Your task to perform on an android device: snooze an email in the gmail app Image 0: 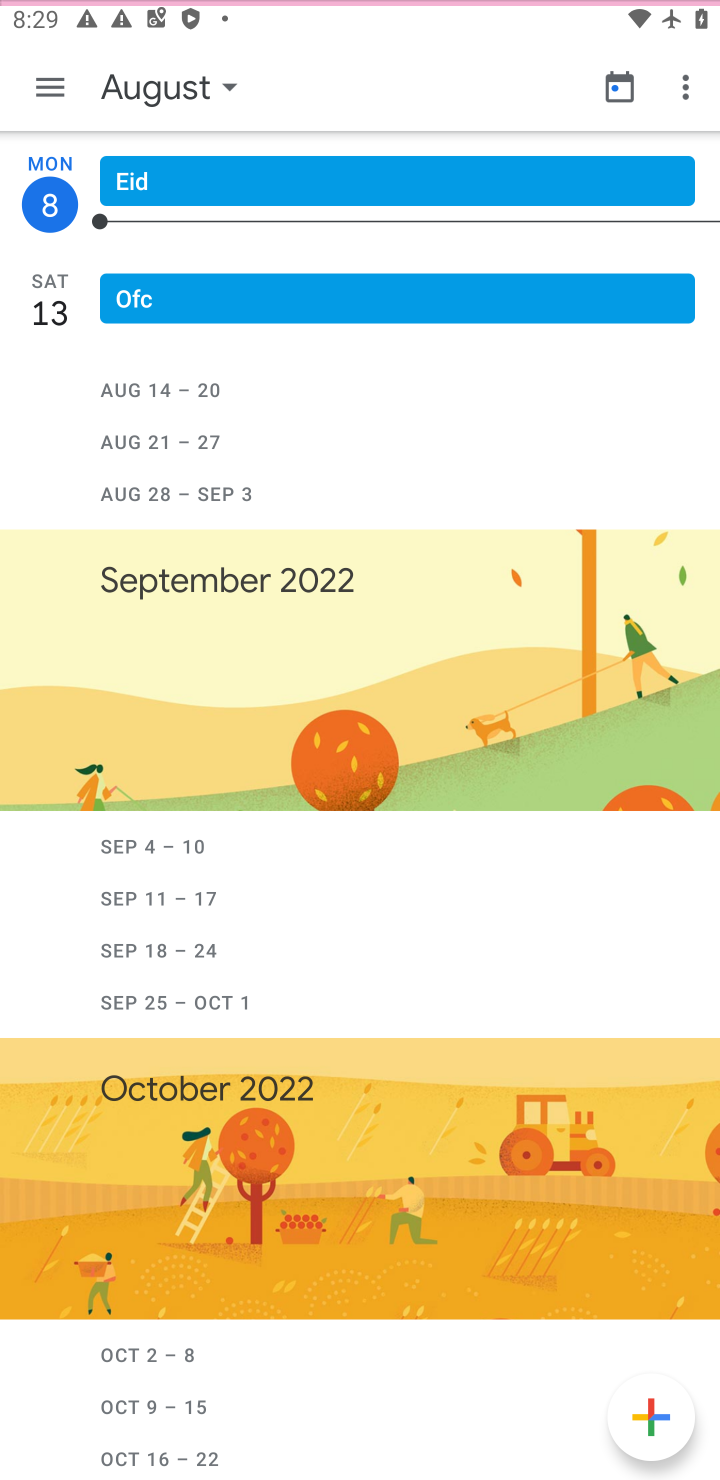
Step 0: click (466, 681)
Your task to perform on an android device: snooze an email in the gmail app Image 1: 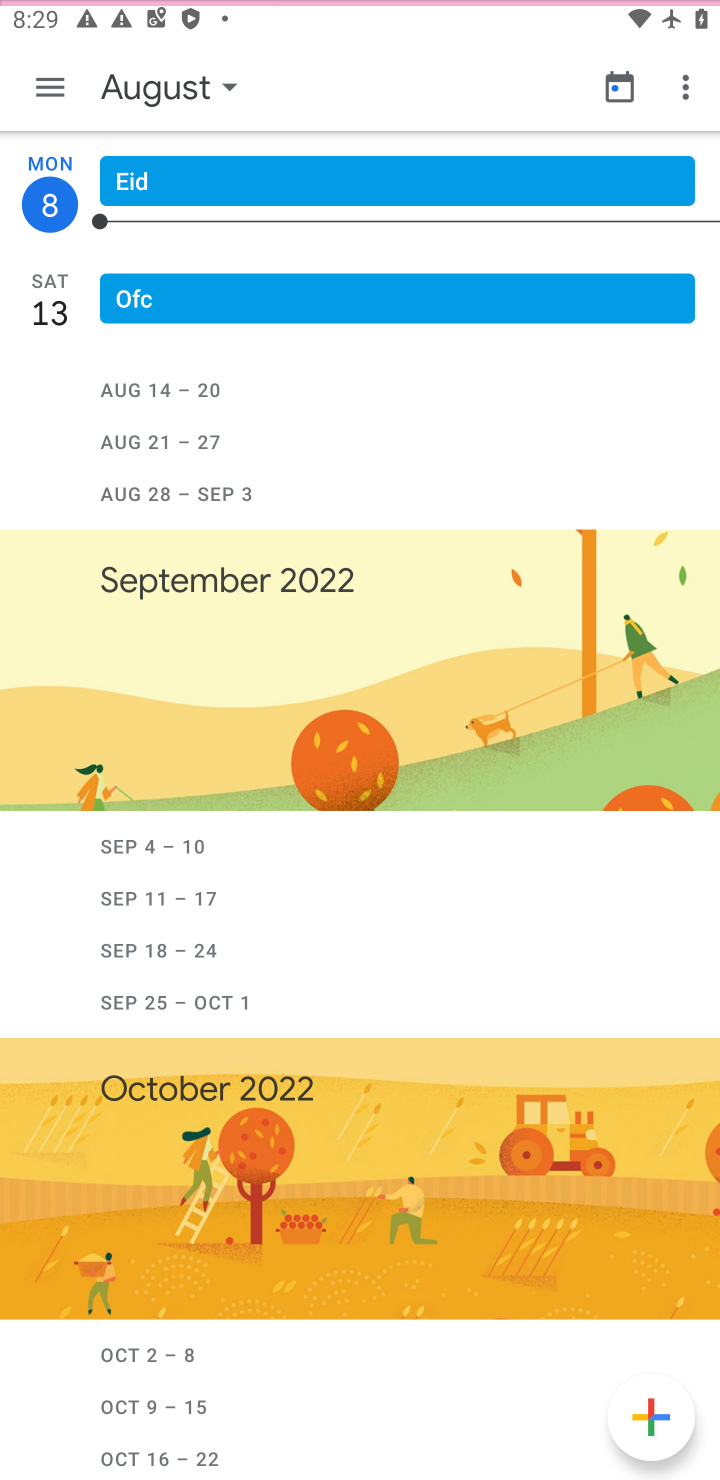
Step 1: press home button
Your task to perform on an android device: snooze an email in the gmail app Image 2: 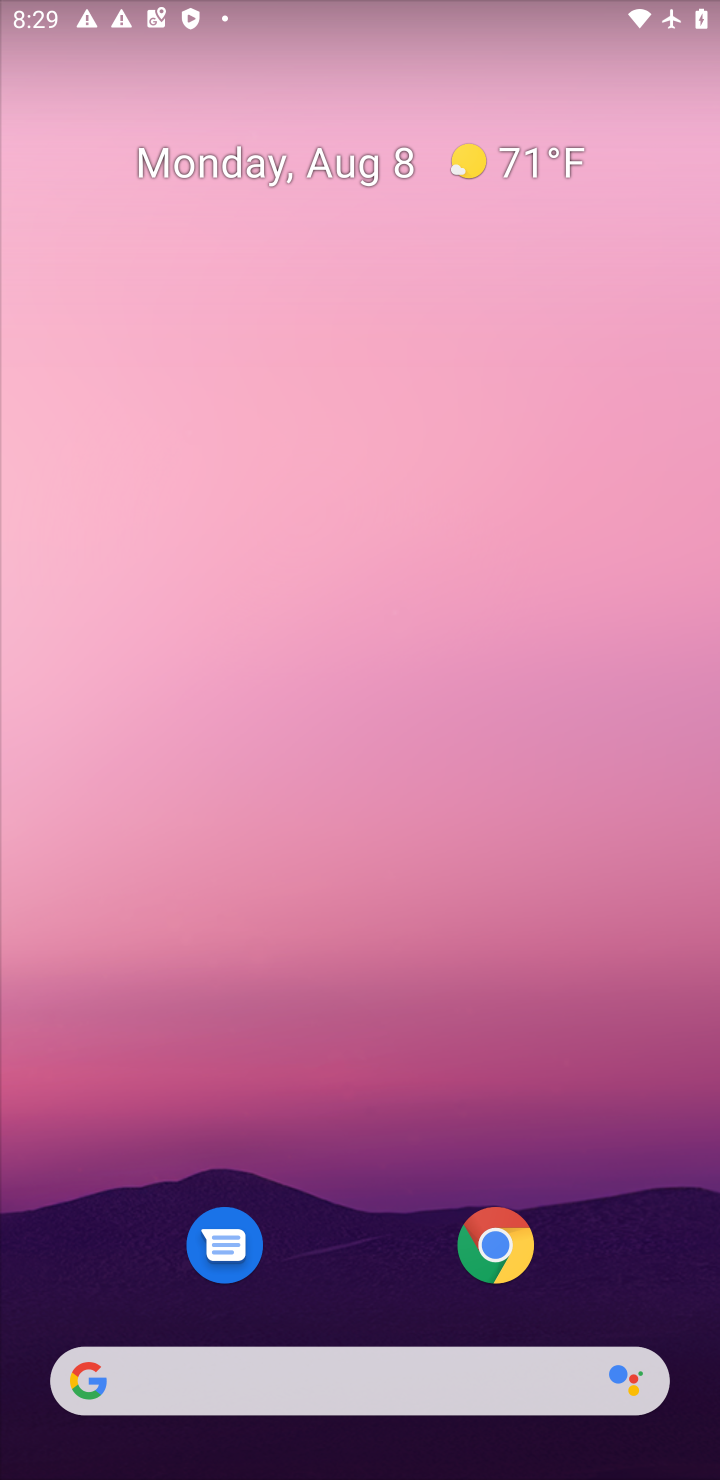
Step 2: drag from (347, 1084) to (172, 34)
Your task to perform on an android device: snooze an email in the gmail app Image 3: 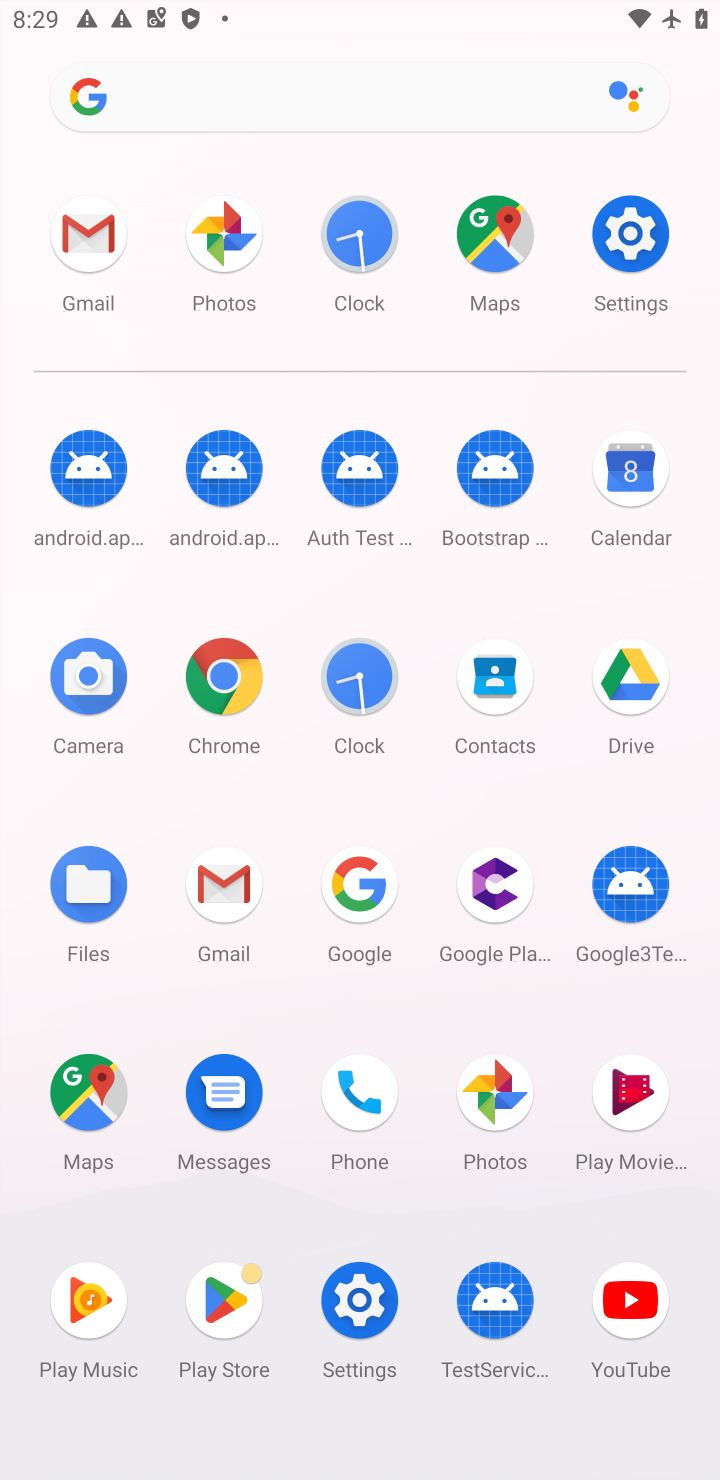
Step 3: click (230, 900)
Your task to perform on an android device: snooze an email in the gmail app Image 4: 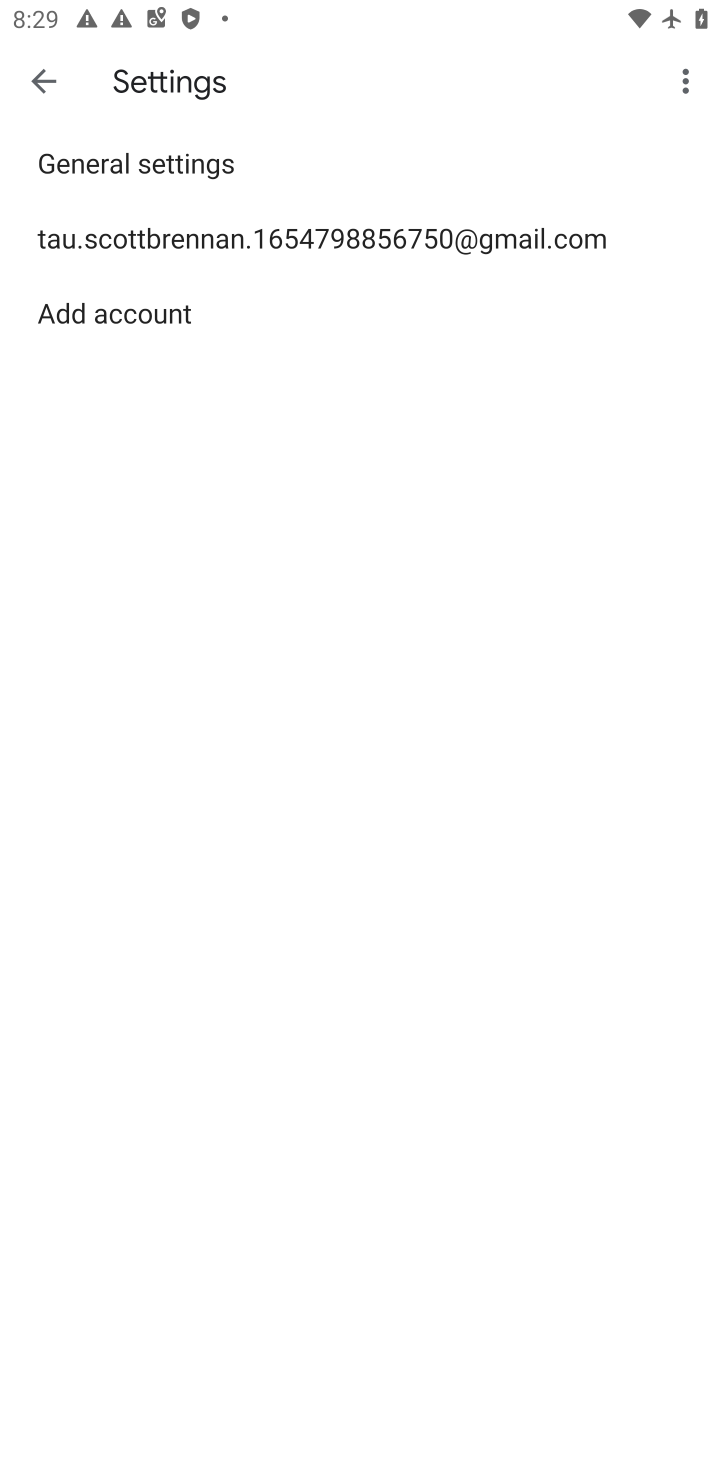
Step 4: click (29, 65)
Your task to perform on an android device: snooze an email in the gmail app Image 5: 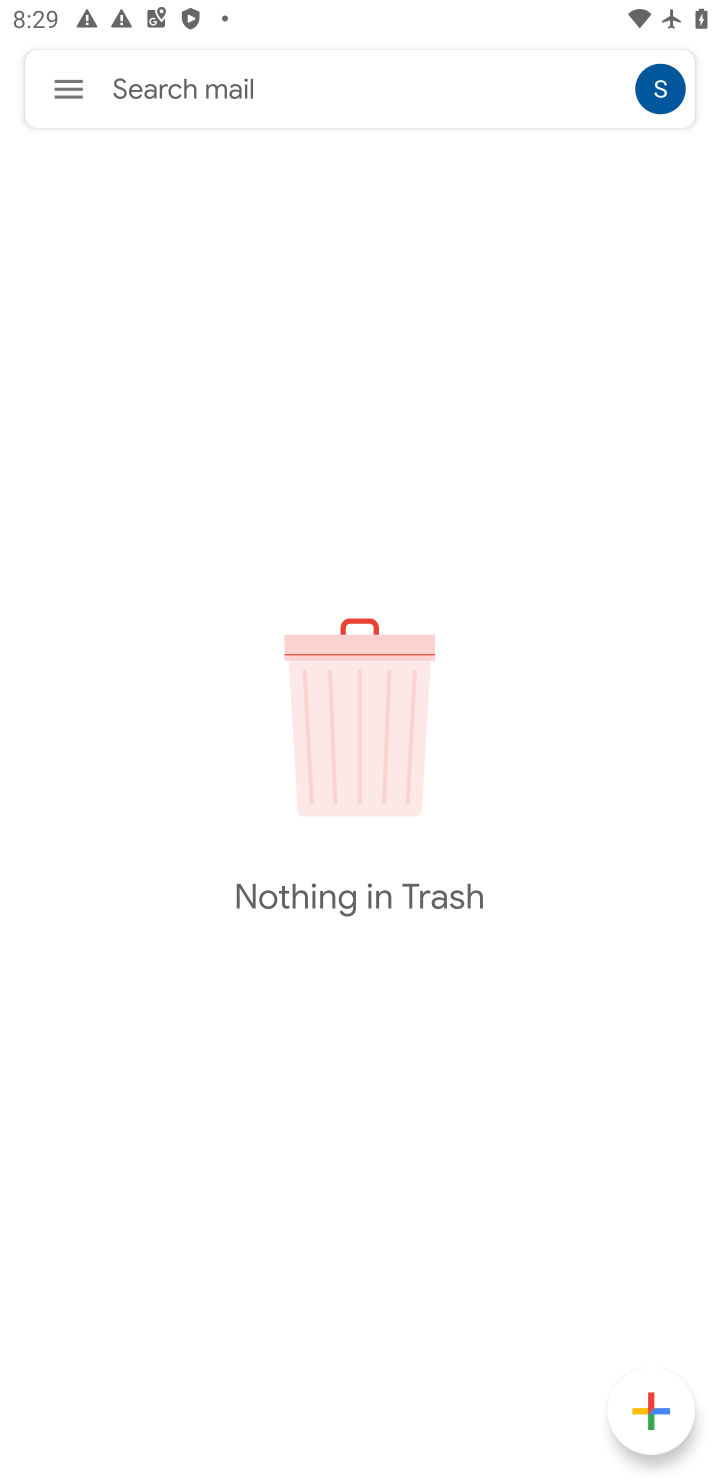
Step 5: click (68, 80)
Your task to perform on an android device: snooze an email in the gmail app Image 6: 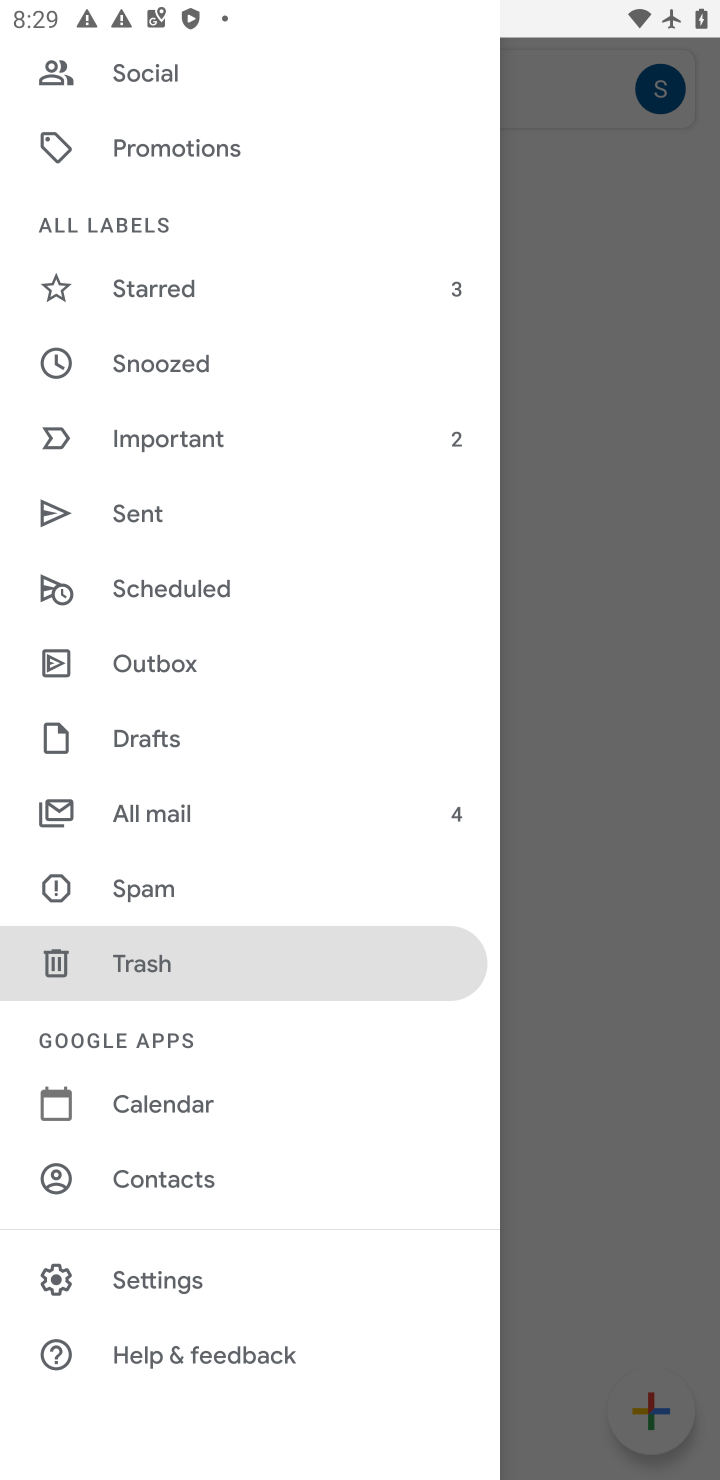
Step 6: drag from (204, 240) to (193, 1028)
Your task to perform on an android device: snooze an email in the gmail app Image 7: 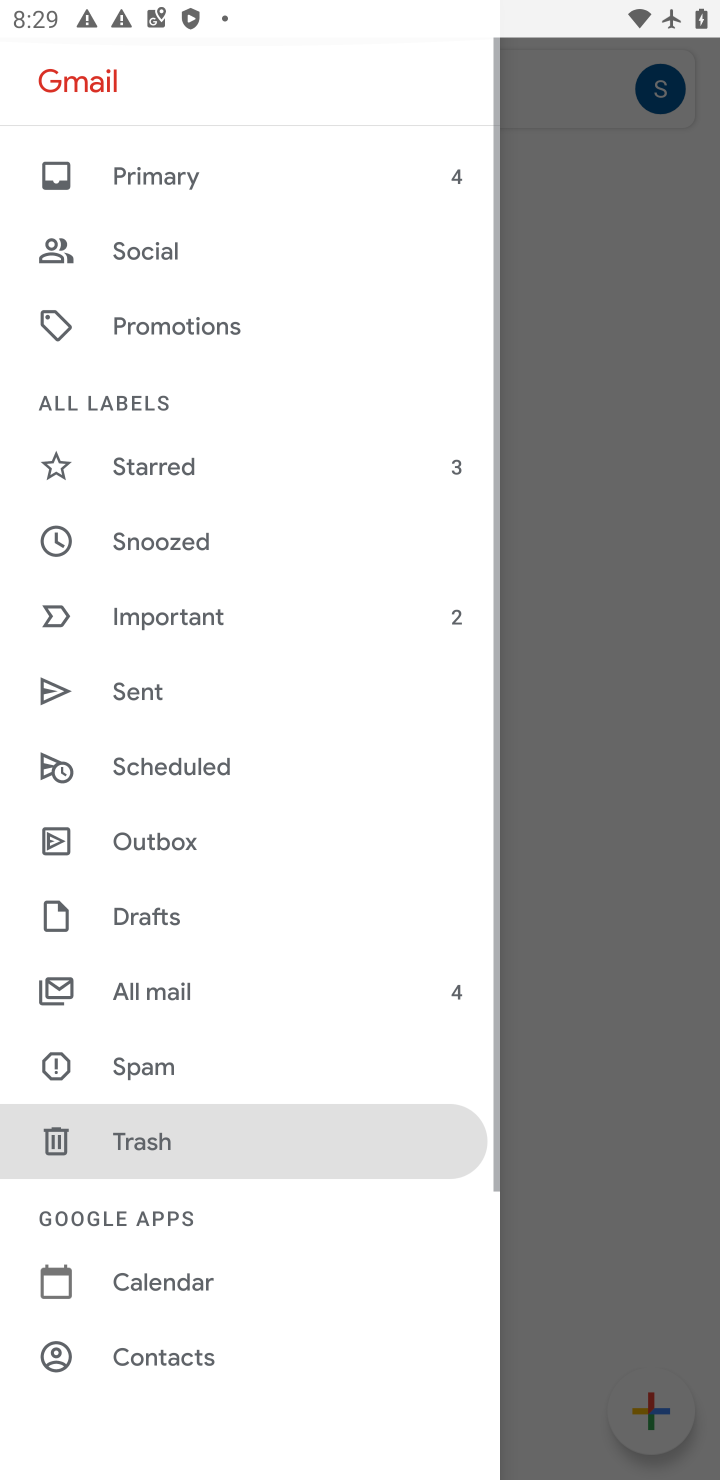
Step 7: click (206, 185)
Your task to perform on an android device: snooze an email in the gmail app Image 8: 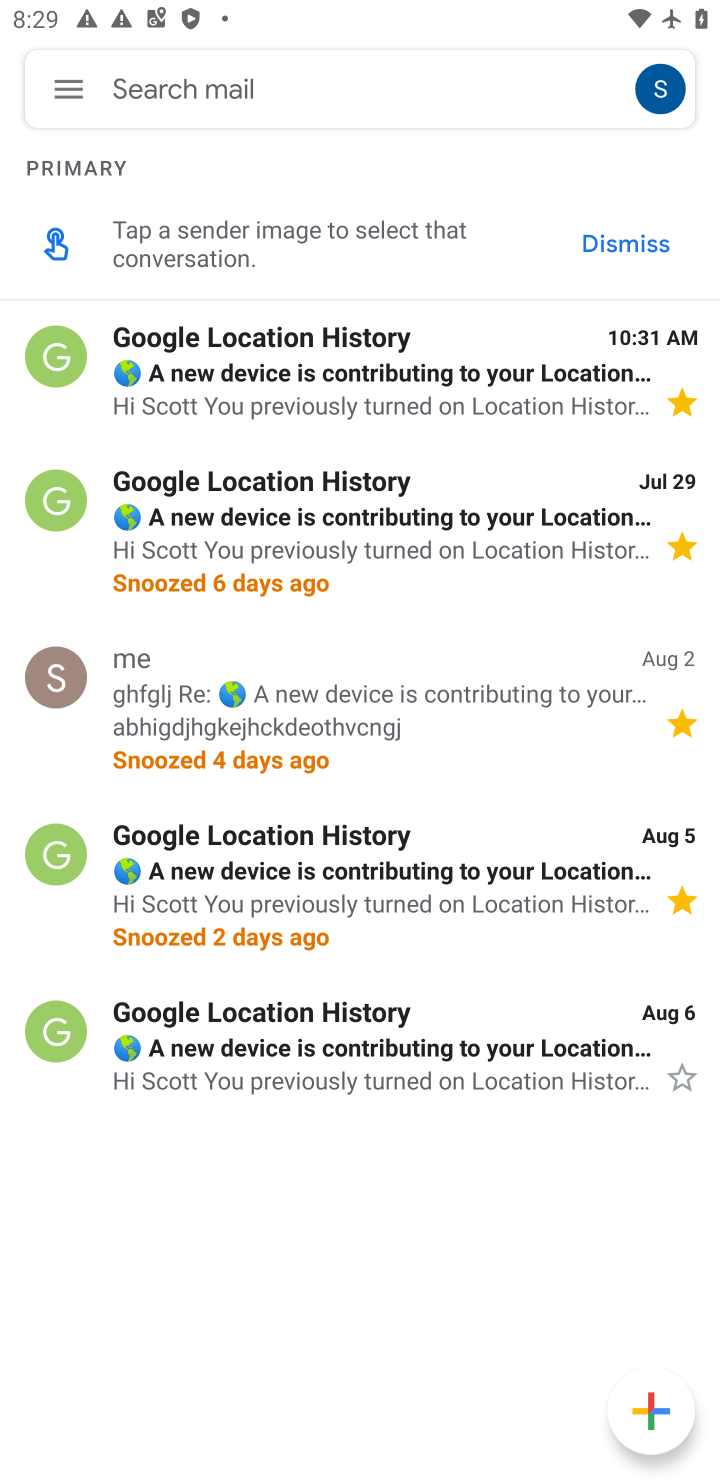
Step 8: click (69, 1013)
Your task to perform on an android device: snooze an email in the gmail app Image 9: 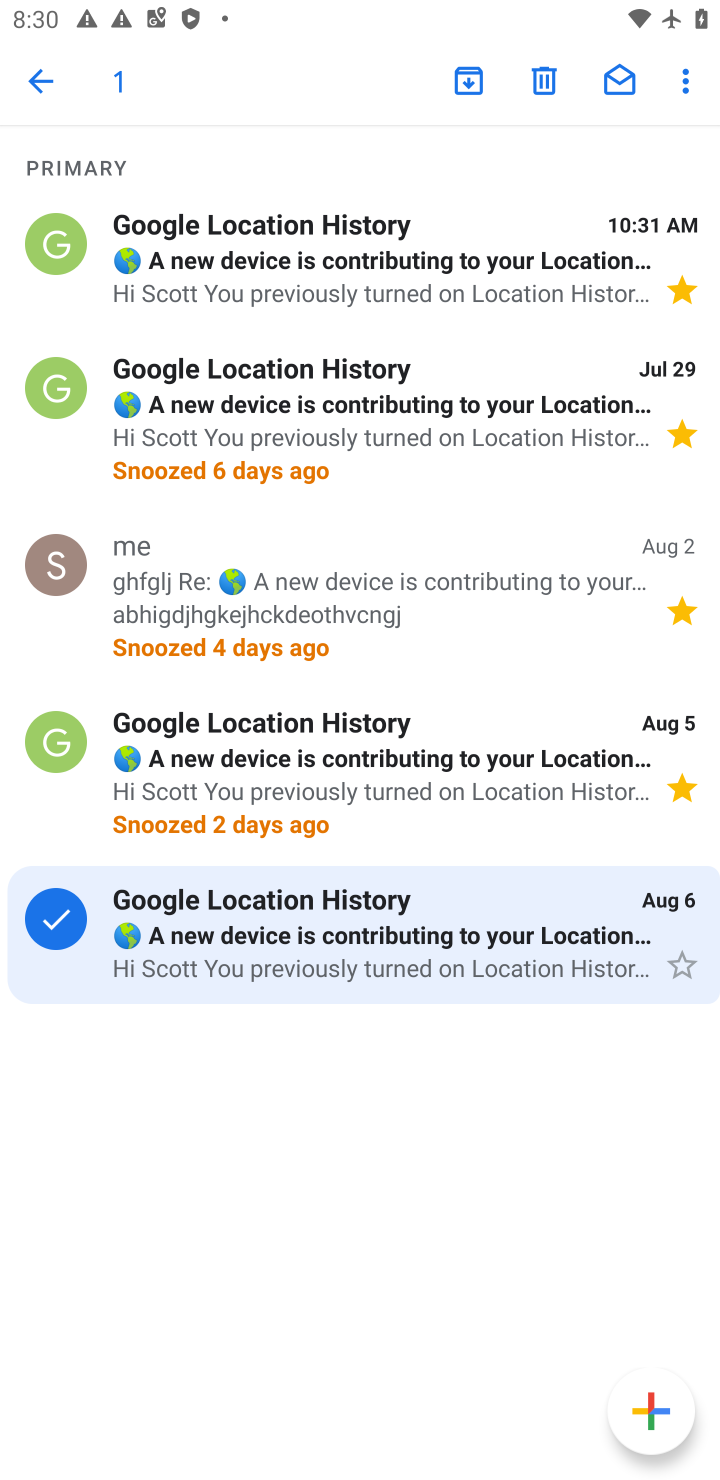
Step 9: click (673, 79)
Your task to perform on an android device: snooze an email in the gmail app Image 10: 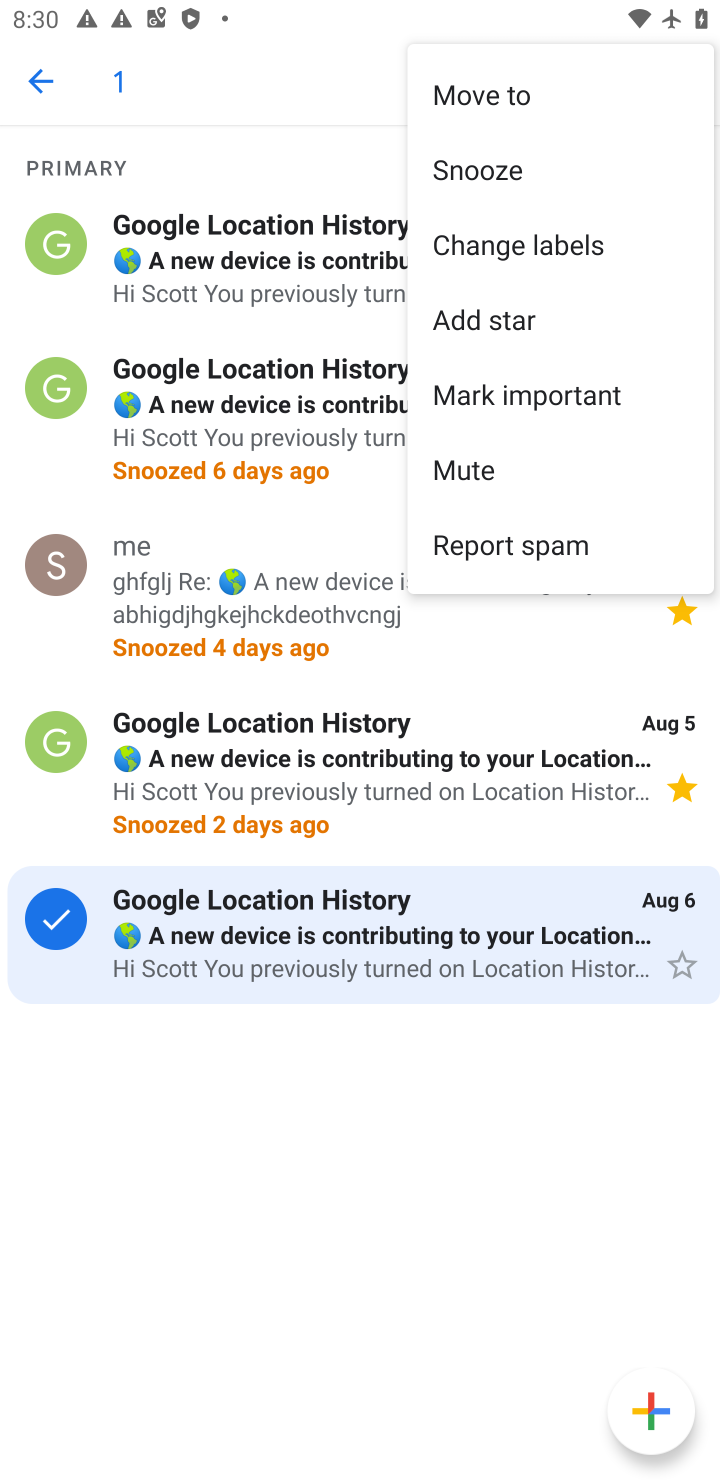
Step 10: click (506, 166)
Your task to perform on an android device: snooze an email in the gmail app Image 11: 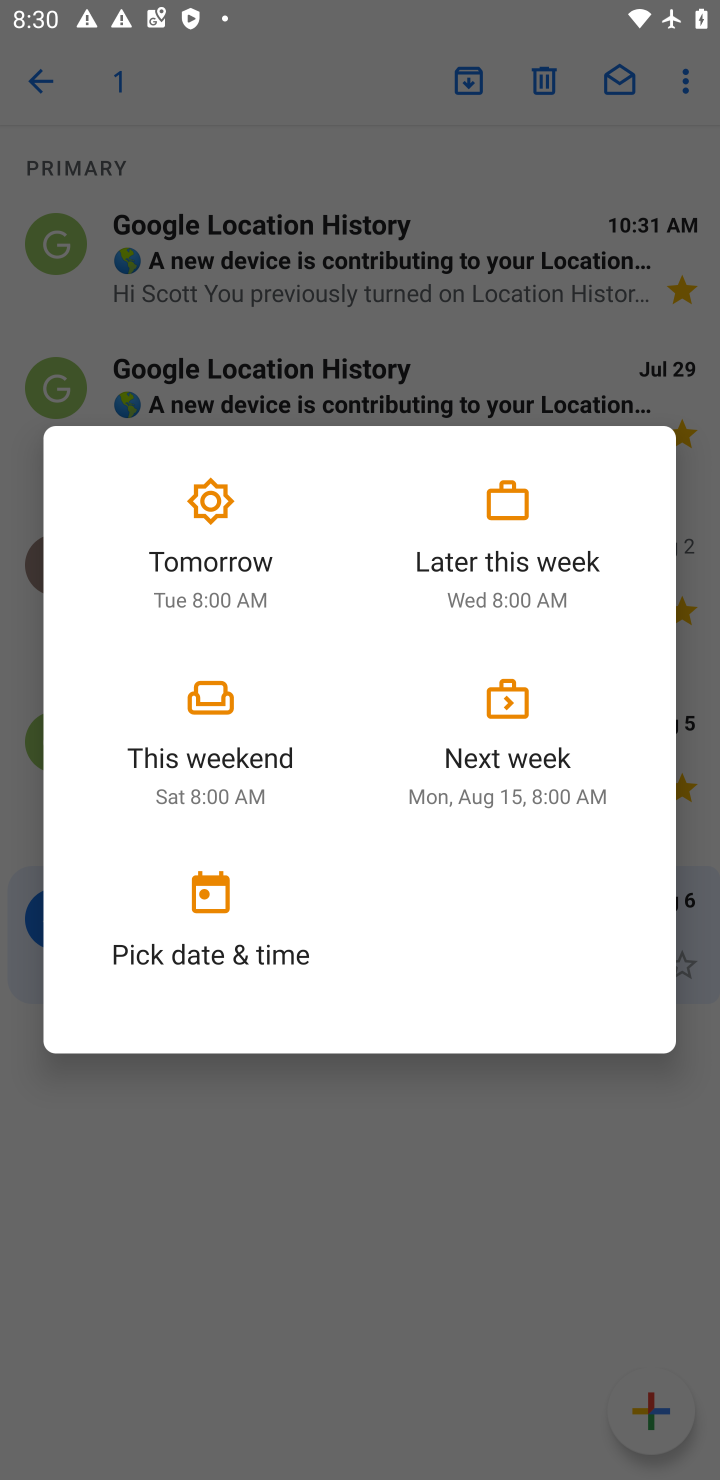
Step 11: click (201, 548)
Your task to perform on an android device: snooze an email in the gmail app Image 12: 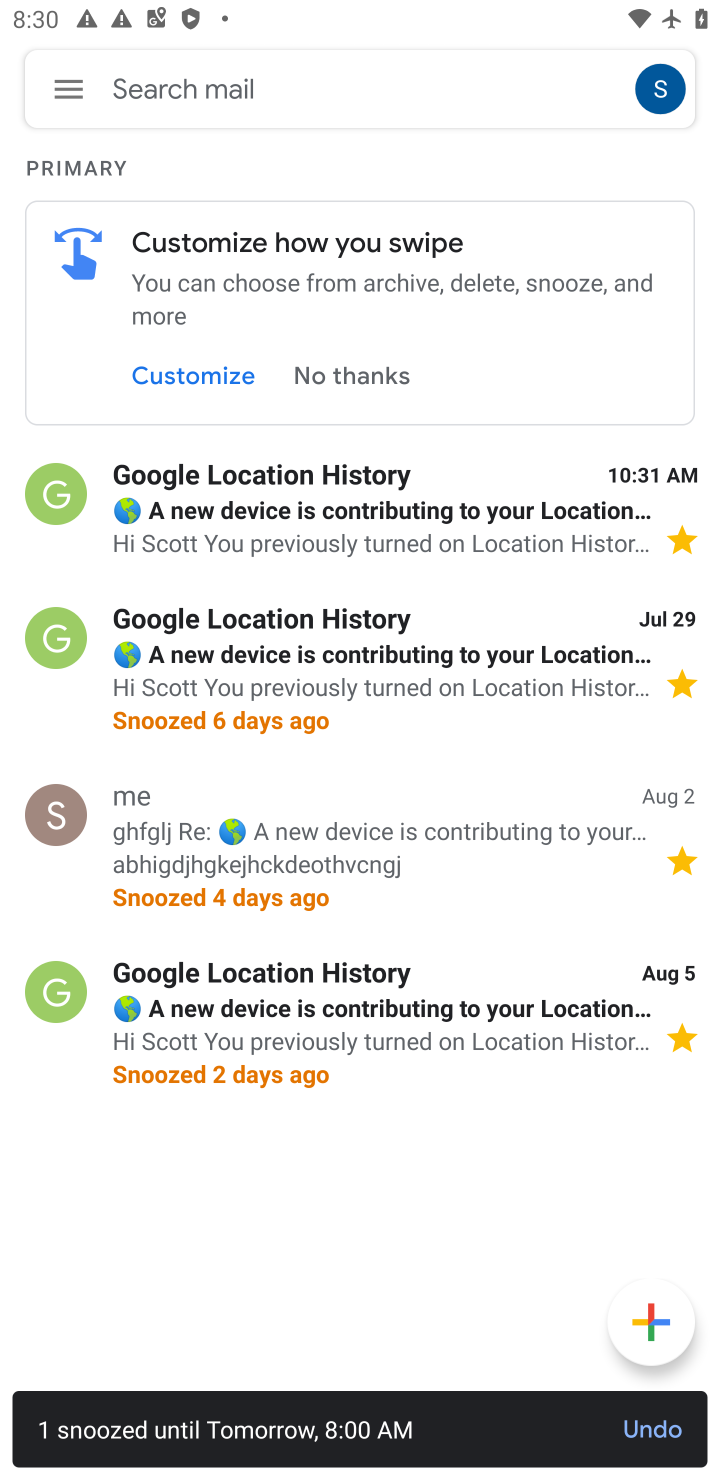
Step 12: task complete